Your task to perform on an android device: show emergency info Image 0: 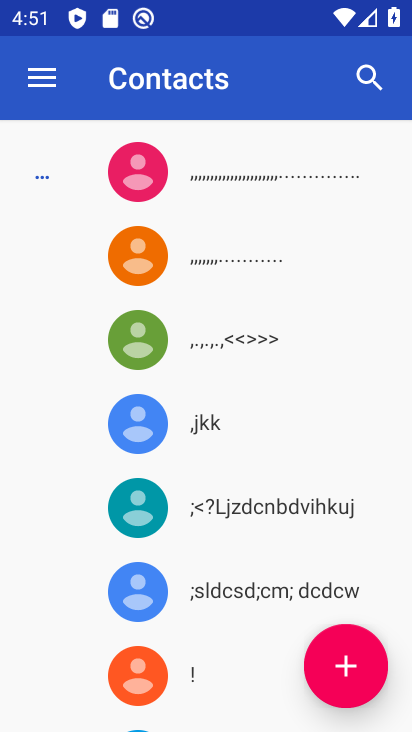
Step 0: press back button
Your task to perform on an android device: show emergency info Image 1: 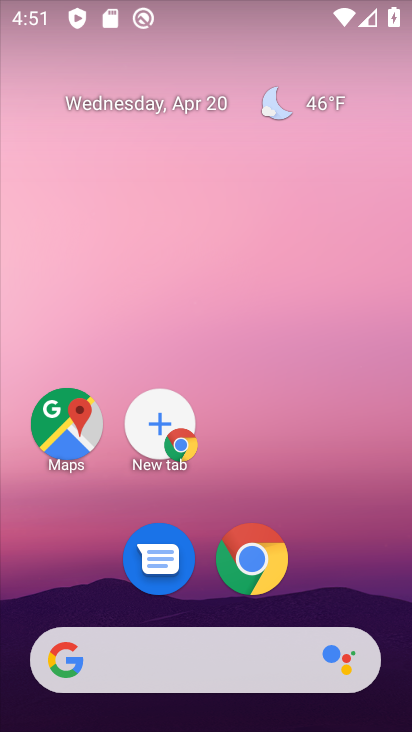
Step 1: drag from (346, 570) to (311, 5)
Your task to perform on an android device: show emergency info Image 2: 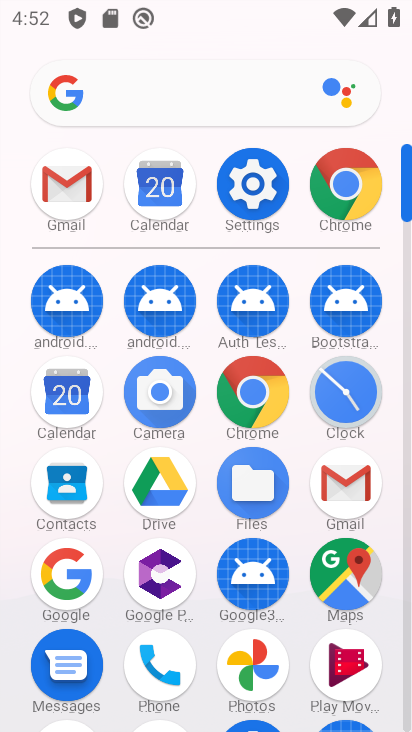
Step 2: click (256, 168)
Your task to perform on an android device: show emergency info Image 3: 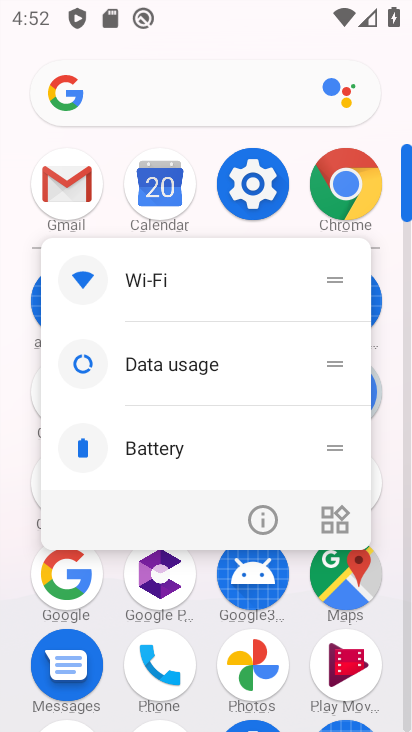
Step 3: click (255, 186)
Your task to perform on an android device: show emergency info Image 4: 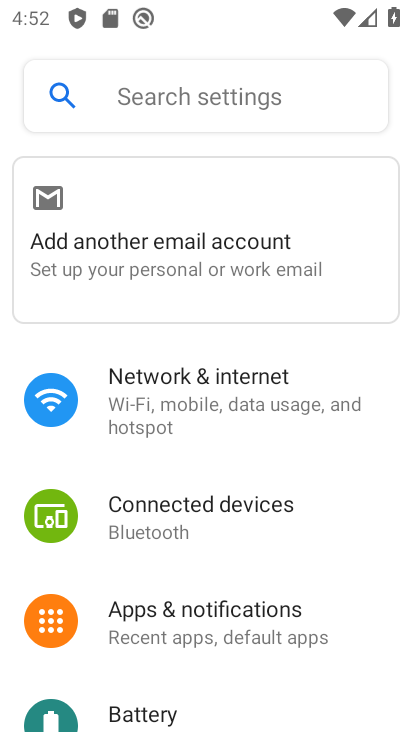
Step 4: drag from (187, 674) to (271, 304)
Your task to perform on an android device: show emergency info Image 5: 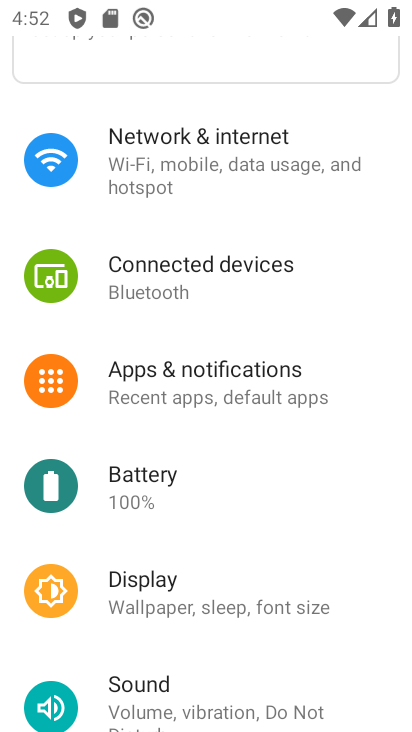
Step 5: drag from (251, 559) to (261, 272)
Your task to perform on an android device: show emergency info Image 6: 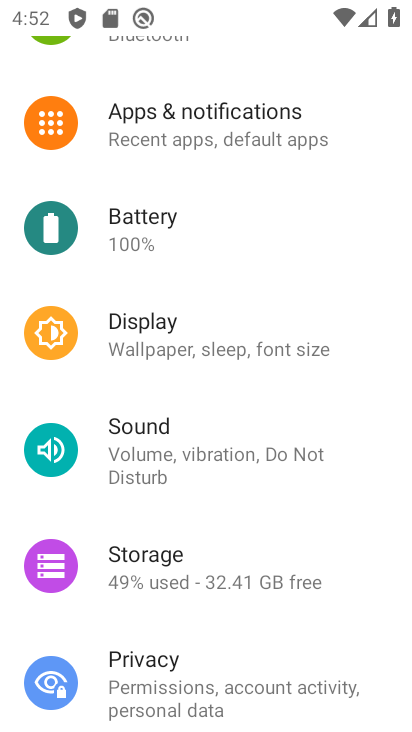
Step 6: drag from (228, 620) to (271, 236)
Your task to perform on an android device: show emergency info Image 7: 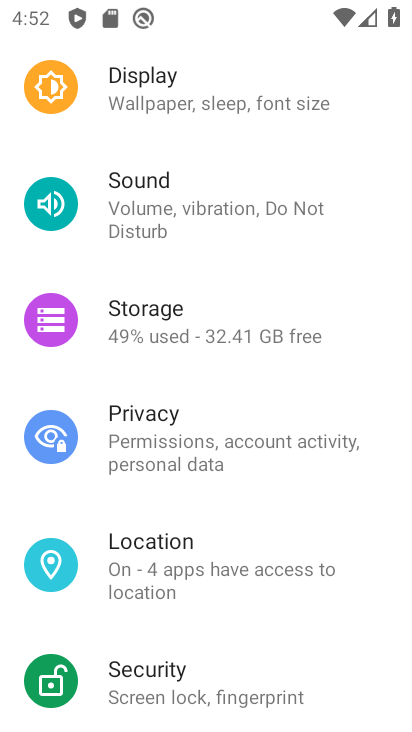
Step 7: drag from (245, 635) to (272, 322)
Your task to perform on an android device: show emergency info Image 8: 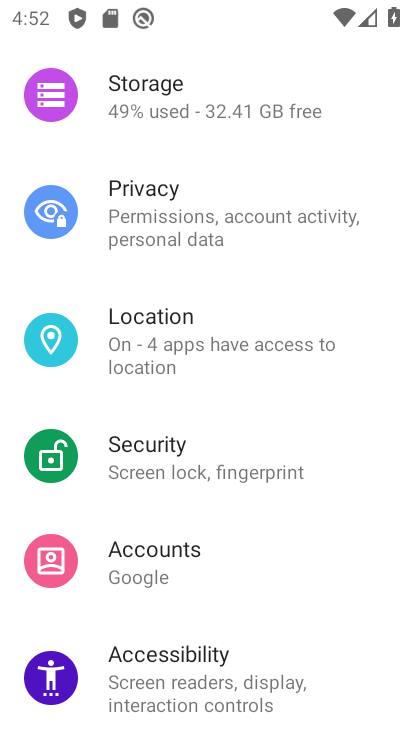
Step 8: drag from (213, 591) to (244, 370)
Your task to perform on an android device: show emergency info Image 9: 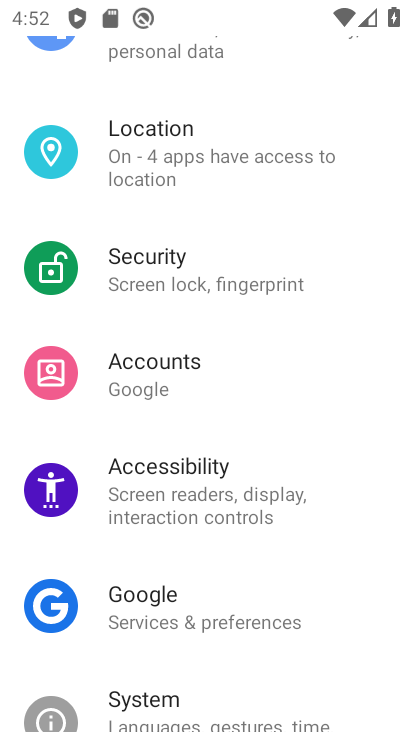
Step 9: drag from (199, 638) to (308, 241)
Your task to perform on an android device: show emergency info Image 10: 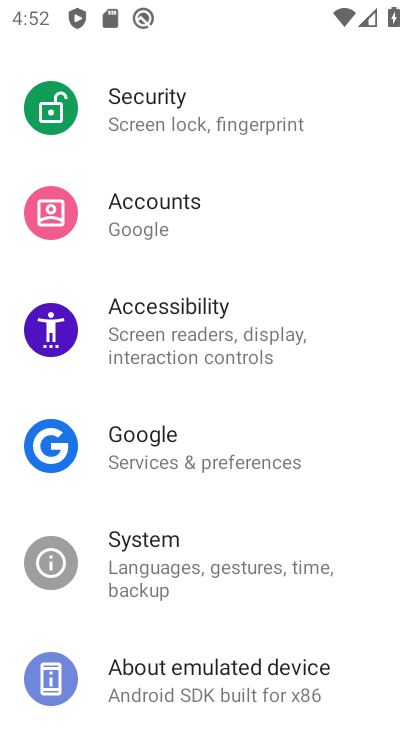
Step 10: click (182, 674)
Your task to perform on an android device: show emergency info Image 11: 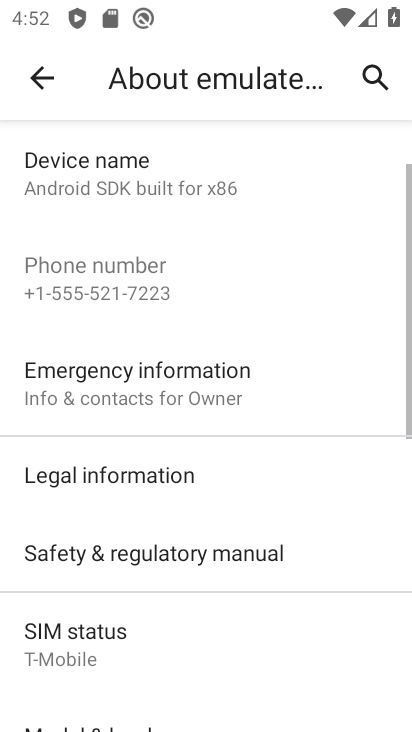
Step 11: click (222, 407)
Your task to perform on an android device: show emergency info Image 12: 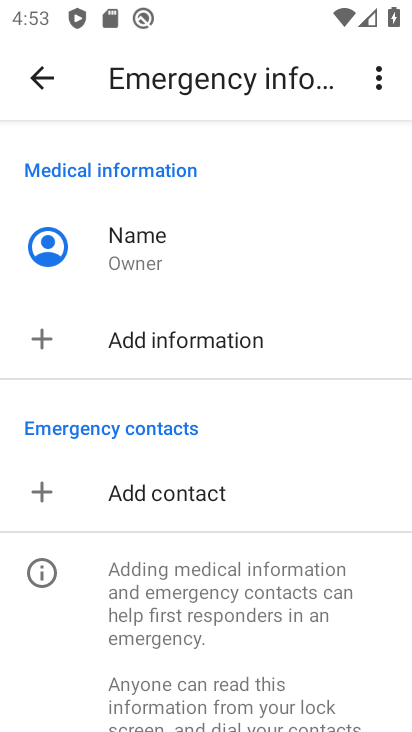
Step 12: task complete